Your task to perform on an android device: Open Yahoo.com Image 0: 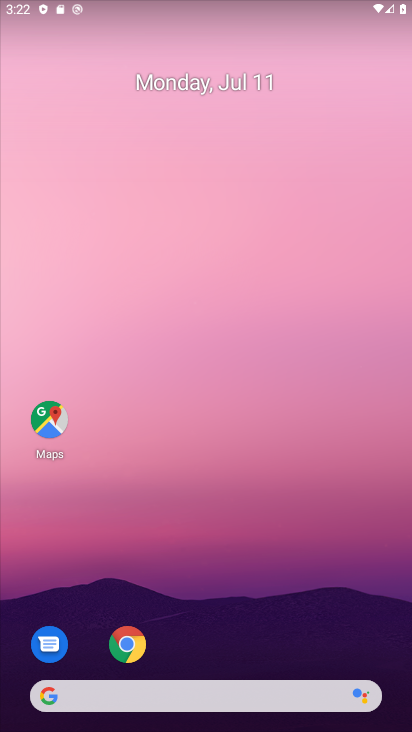
Step 0: click (124, 641)
Your task to perform on an android device: Open Yahoo.com Image 1: 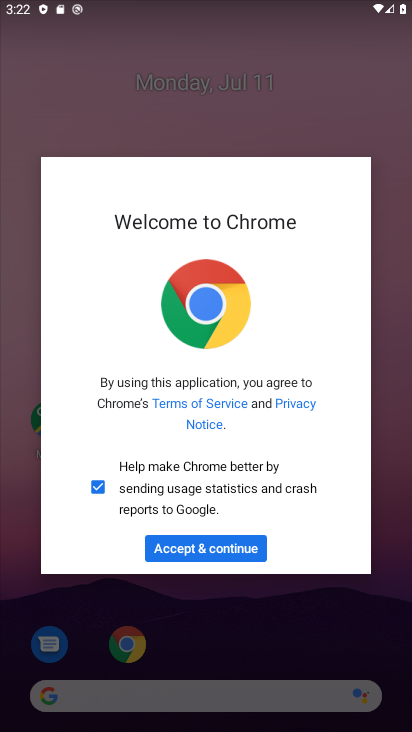
Step 1: click (212, 548)
Your task to perform on an android device: Open Yahoo.com Image 2: 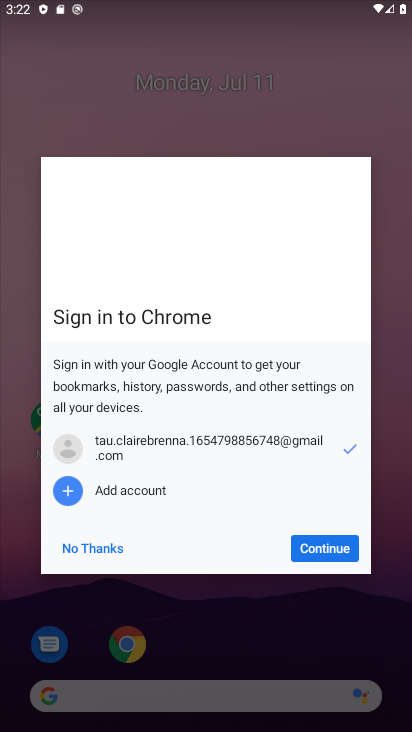
Step 2: click (330, 541)
Your task to perform on an android device: Open Yahoo.com Image 3: 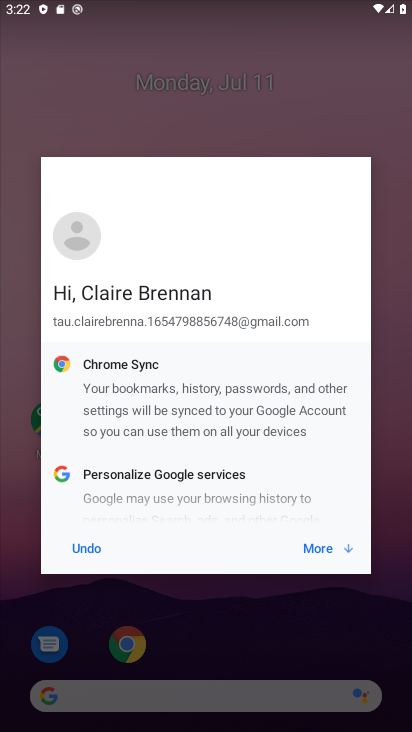
Step 3: click (317, 547)
Your task to perform on an android device: Open Yahoo.com Image 4: 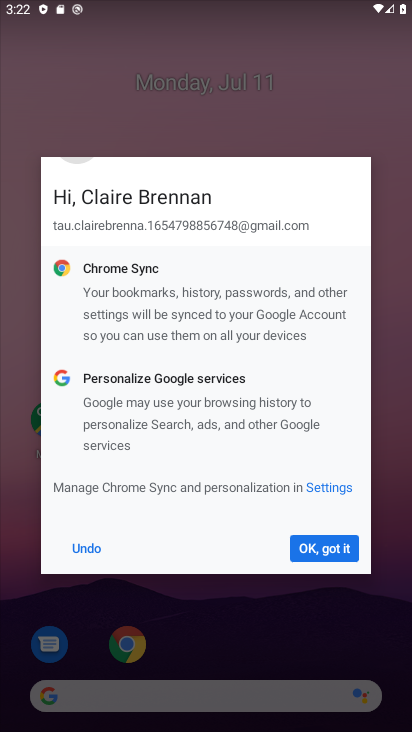
Step 4: click (317, 547)
Your task to perform on an android device: Open Yahoo.com Image 5: 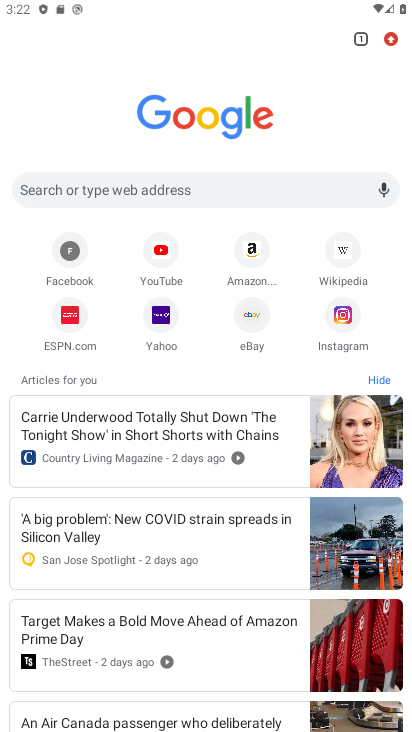
Step 5: click (157, 311)
Your task to perform on an android device: Open Yahoo.com Image 6: 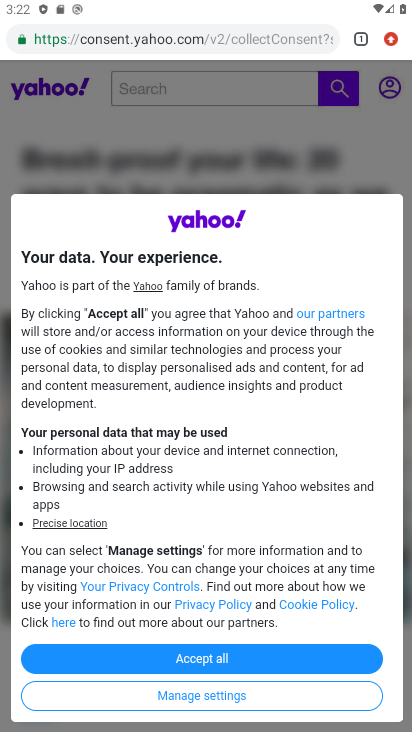
Step 6: click (207, 657)
Your task to perform on an android device: Open Yahoo.com Image 7: 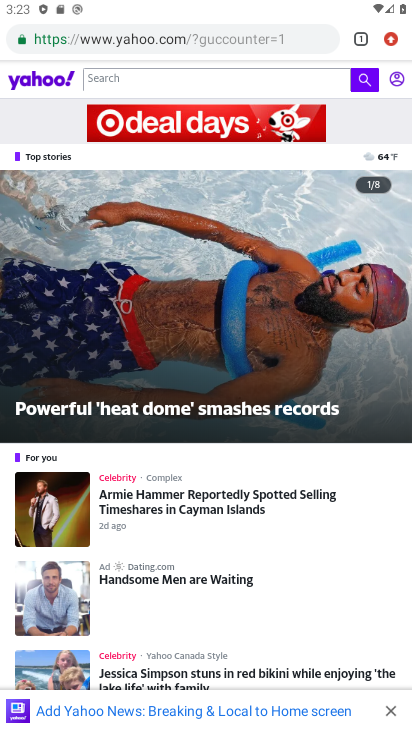
Step 7: task complete